Your task to perform on an android device: What is the capital of Switzerland? Image 0: 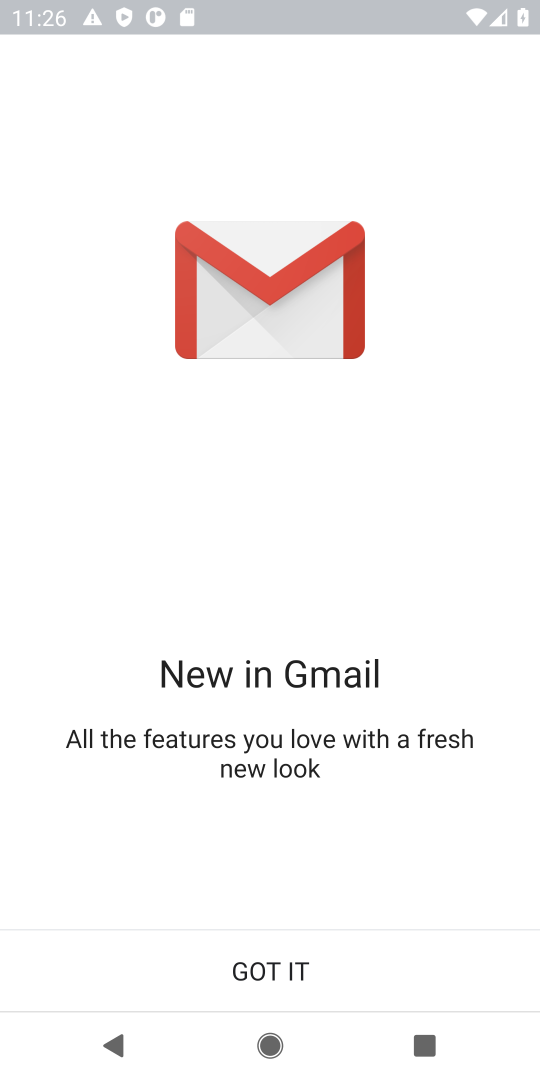
Step 0: press home button
Your task to perform on an android device: What is the capital of Switzerland? Image 1: 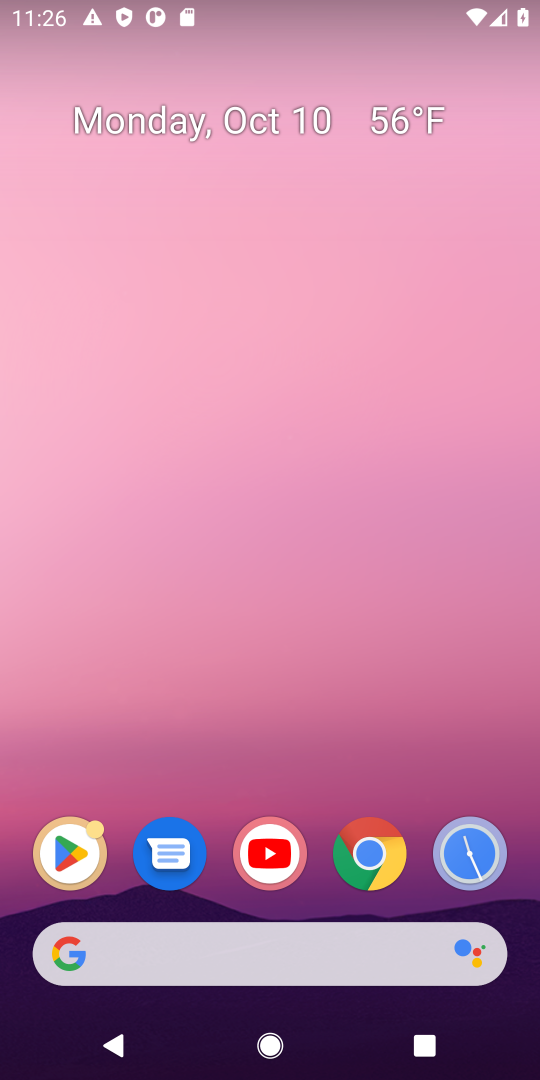
Step 1: drag from (319, 785) to (413, 43)
Your task to perform on an android device: What is the capital of Switzerland? Image 2: 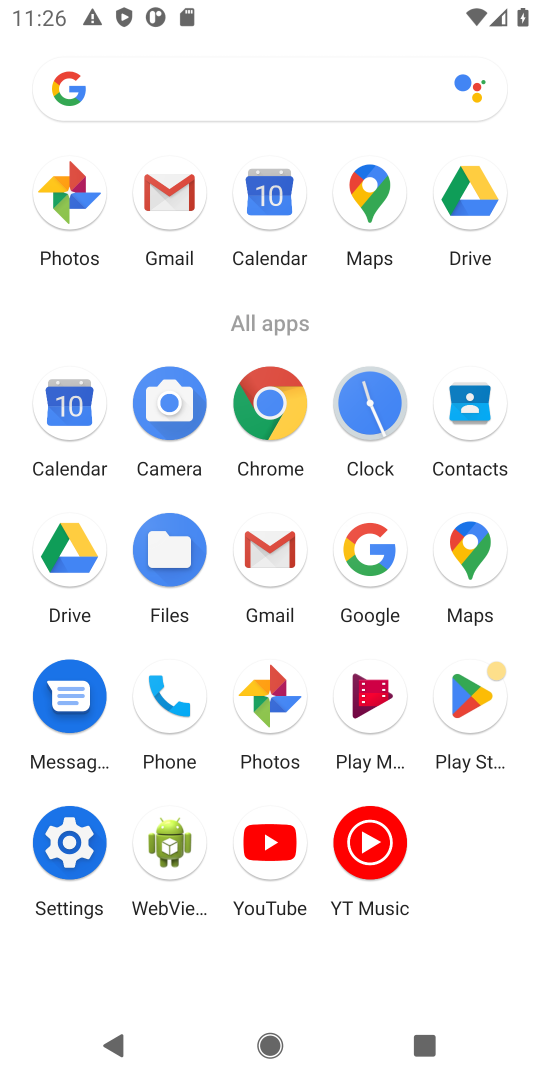
Step 2: click (263, 399)
Your task to perform on an android device: What is the capital of Switzerland? Image 3: 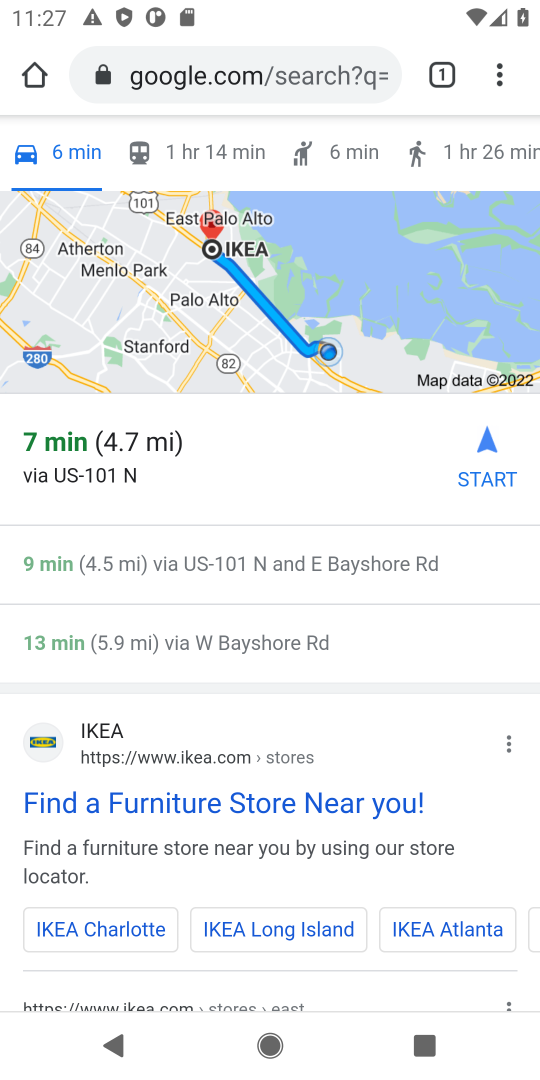
Step 3: click (232, 77)
Your task to perform on an android device: What is the capital of Switzerland? Image 4: 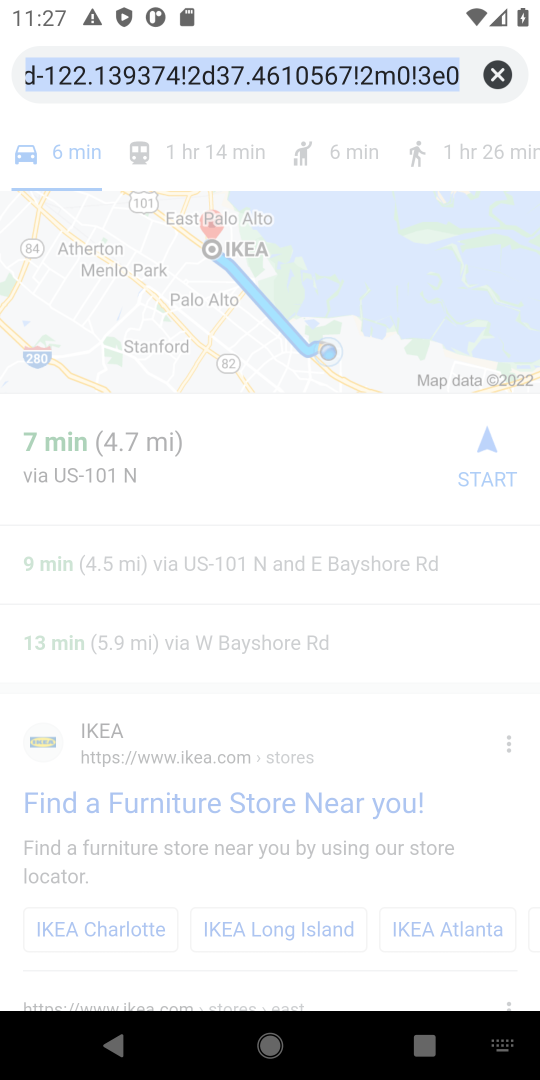
Step 4: click (495, 78)
Your task to perform on an android device: What is the capital of Switzerland? Image 5: 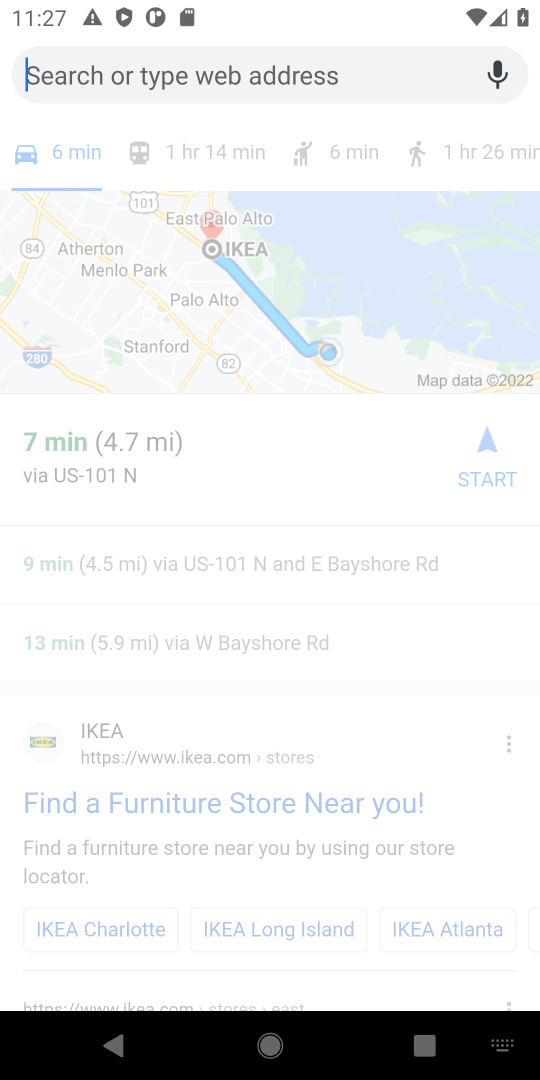
Step 5: type "What is the capital of Switzerland?"
Your task to perform on an android device: What is the capital of Switzerland? Image 6: 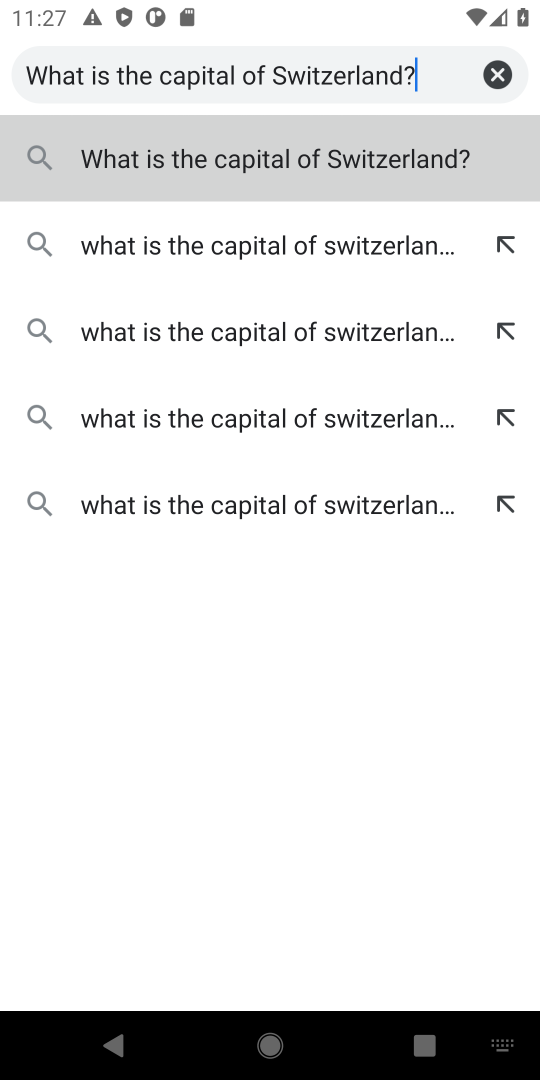
Step 6: click (276, 159)
Your task to perform on an android device: What is the capital of Switzerland? Image 7: 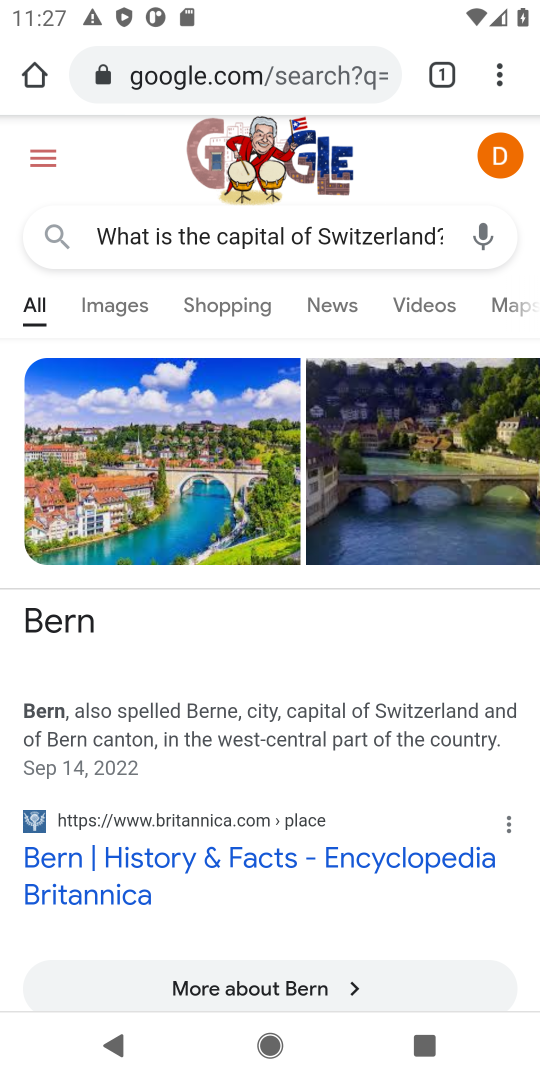
Step 7: task complete